Your task to perform on an android device: set an alarm Image 0: 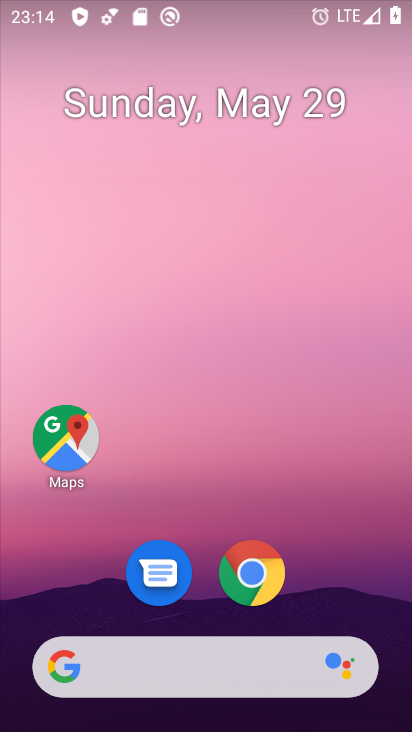
Step 0: drag from (349, 586) to (123, 35)
Your task to perform on an android device: set an alarm Image 1: 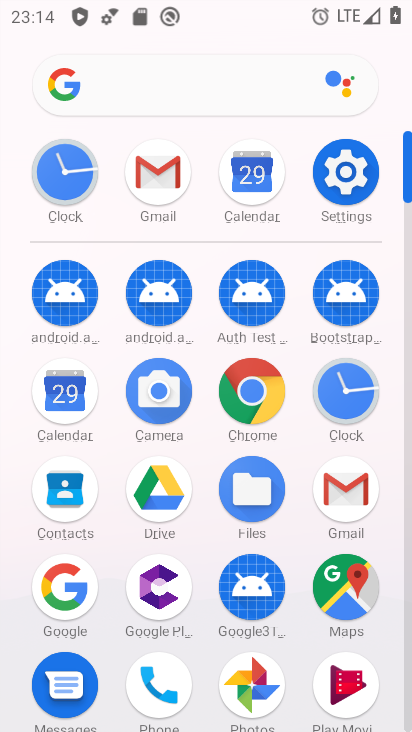
Step 1: click (361, 373)
Your task to perform on an android device: set an alarm Image 2: 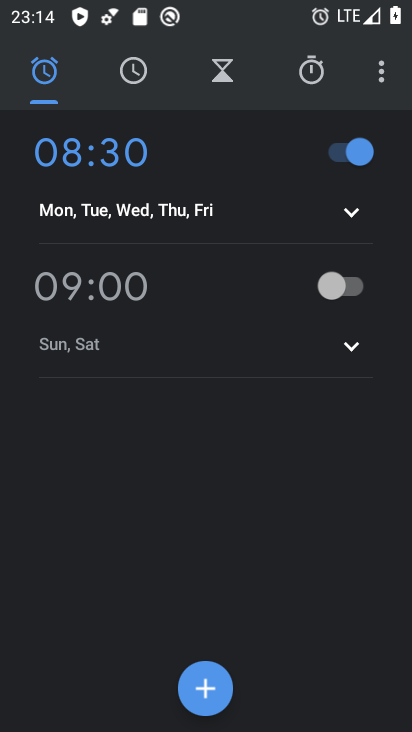
Step 2: click (335, 286)
Your task to perform on an android device: set an alarm Image 3: 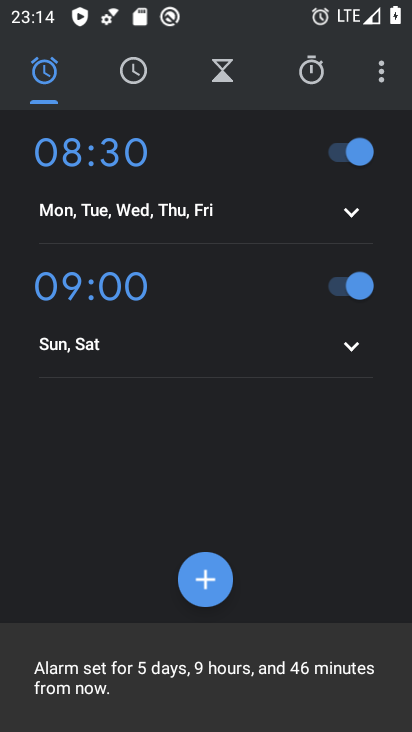
Step 3: task complete